Your task to perform on an android device: open device folders in google photos Image 0: 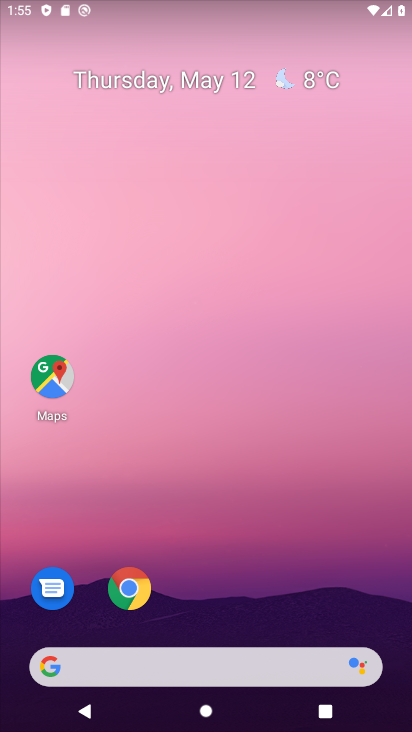
Step 0: drag from (250, 507) to (221, 54)
Your task to perform on an android device: open device folders in google photos Image 1: 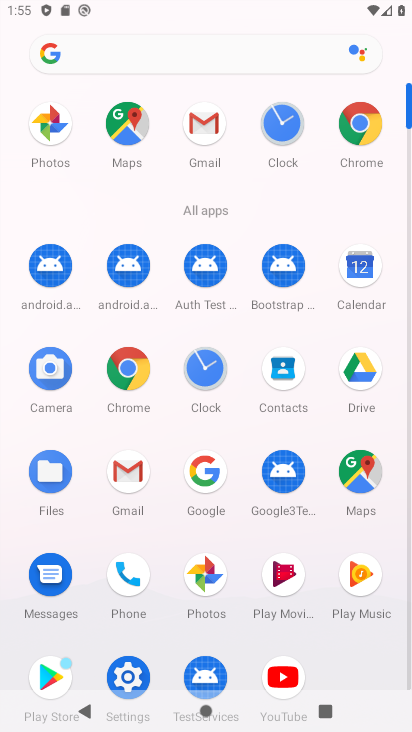
Step 1: drag from (0, 522) to (6, 231)
Your task to perform on an android device: open device folders in google photos Image 2: 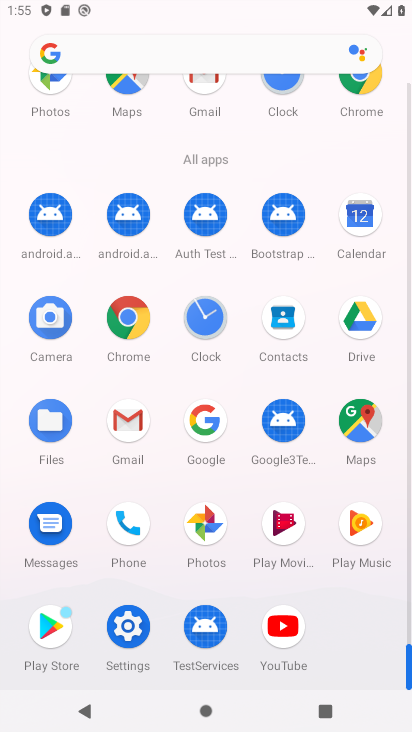
Step 2: click (209, 523)
Your task to perform on an android device: open device folders in google photos Image 3: 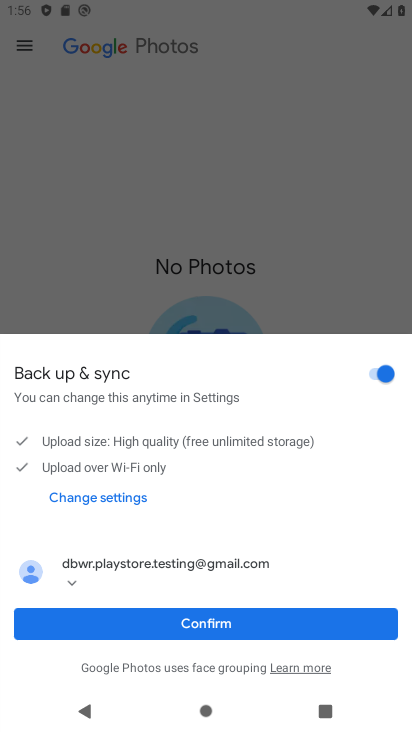
Step 3: click (228, 624)
Your task to perform on an android device: open device folders in google photos Image 4: 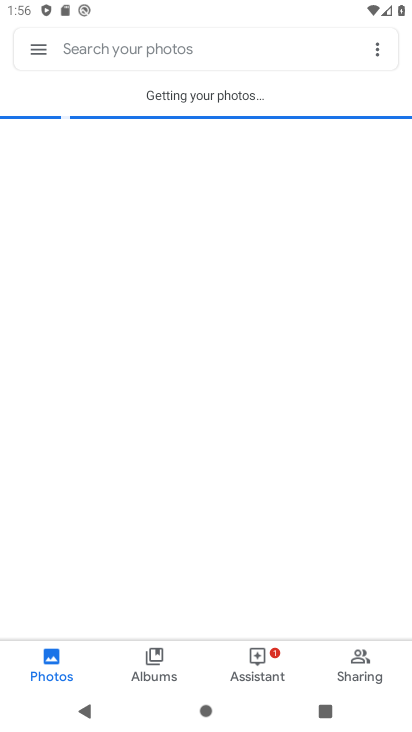
Step 4: click (38, 45)
Your task to perform on an android device: open device folders in google photos Image 5: 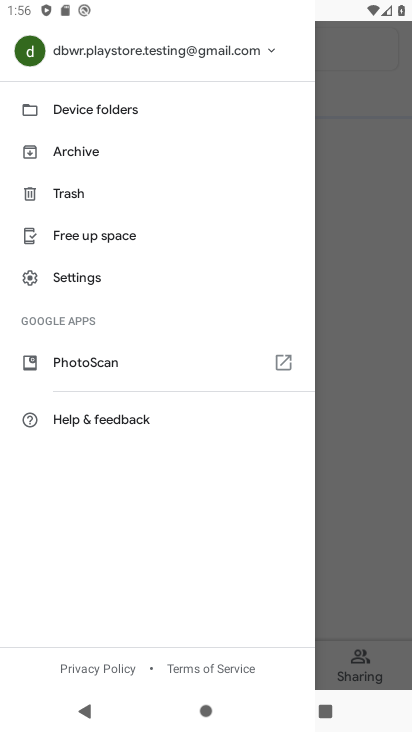
Step 5: click (106, 105)
Your task to perform on an android device: open device folders in google photos Image 6: 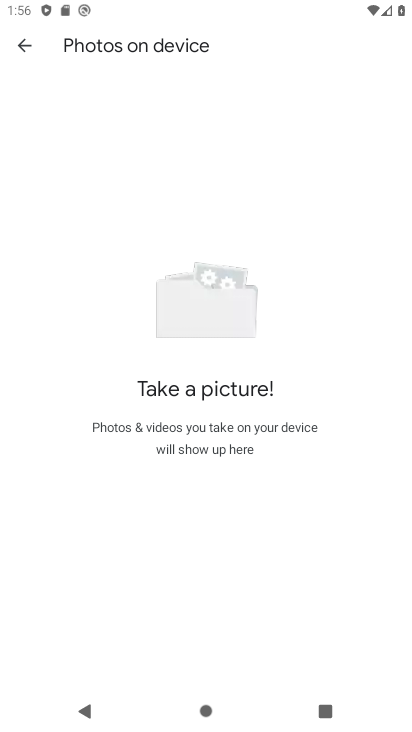
Step 6: task complete